Your task to perform on an android device: See recent photos Image 0: 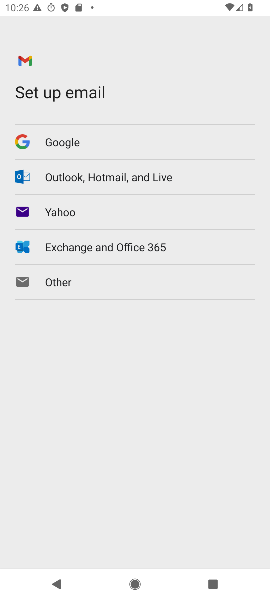
Step 0: press home button
Your task to perform on an android device: See recent photos Image 1: 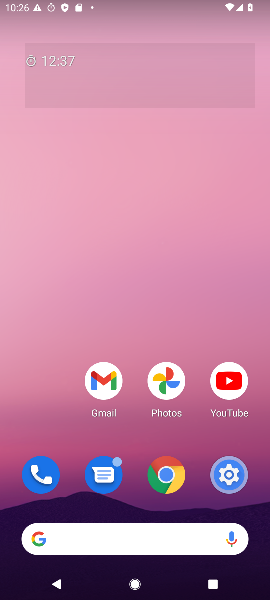
Step 1: click (178, 383)
Your task to perform on an android device: See recent photos Image 2: 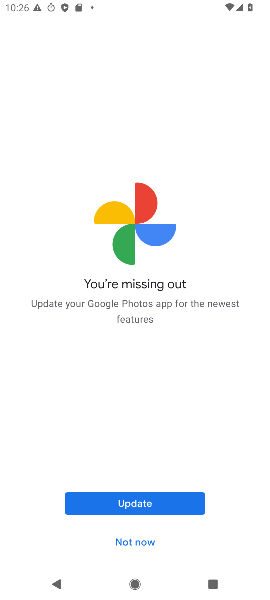
Step 2: click (138, 542)
Your task to perform on an android device: See recent photos Image 3: 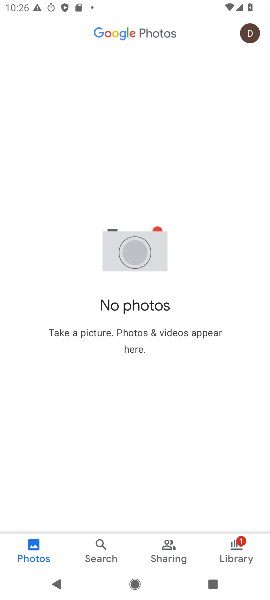
Step 3: task complete